Your task to perform on an android device: Search for Mexican restaurants on Maps Image 0: 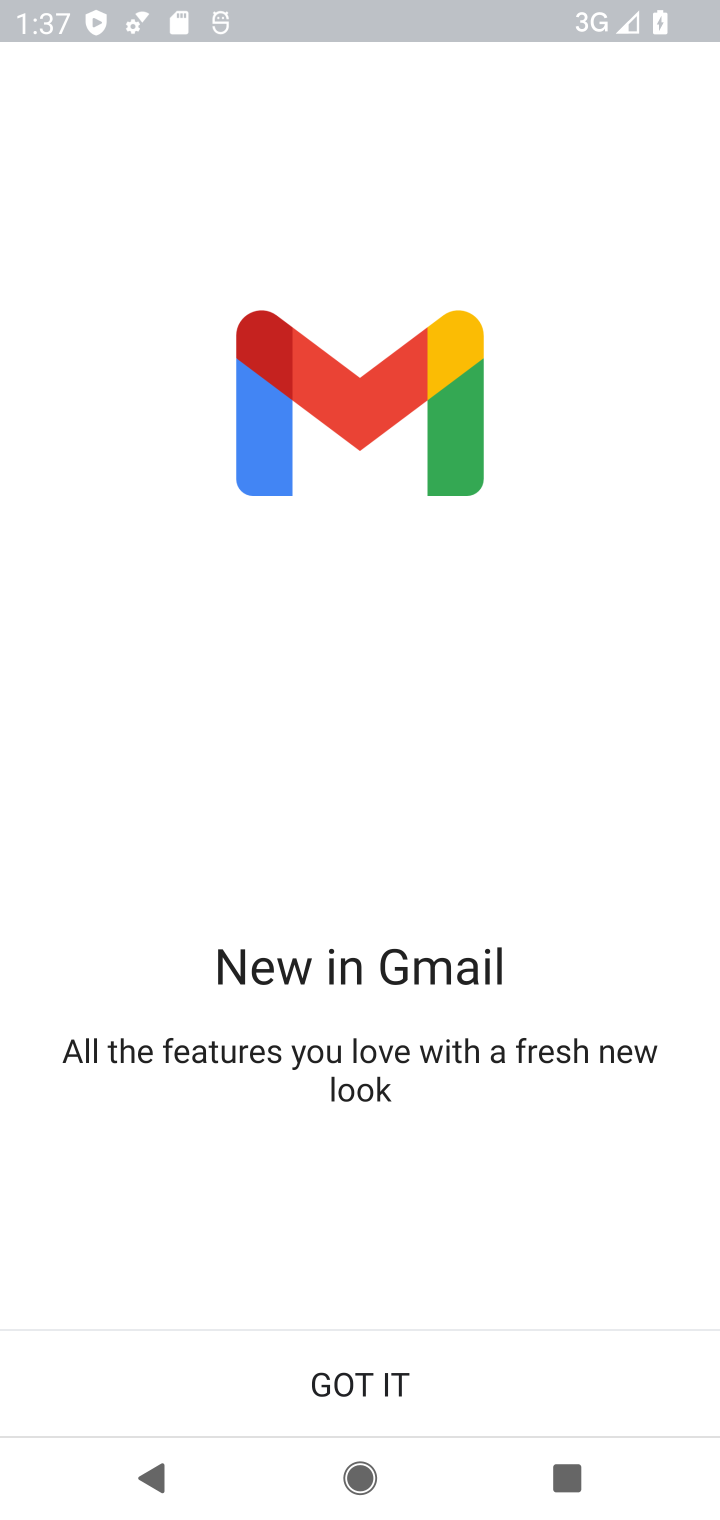
Step 0: press home button
Your task to perform on an android device: Search for Mexican restaurants on Maps Image 1: 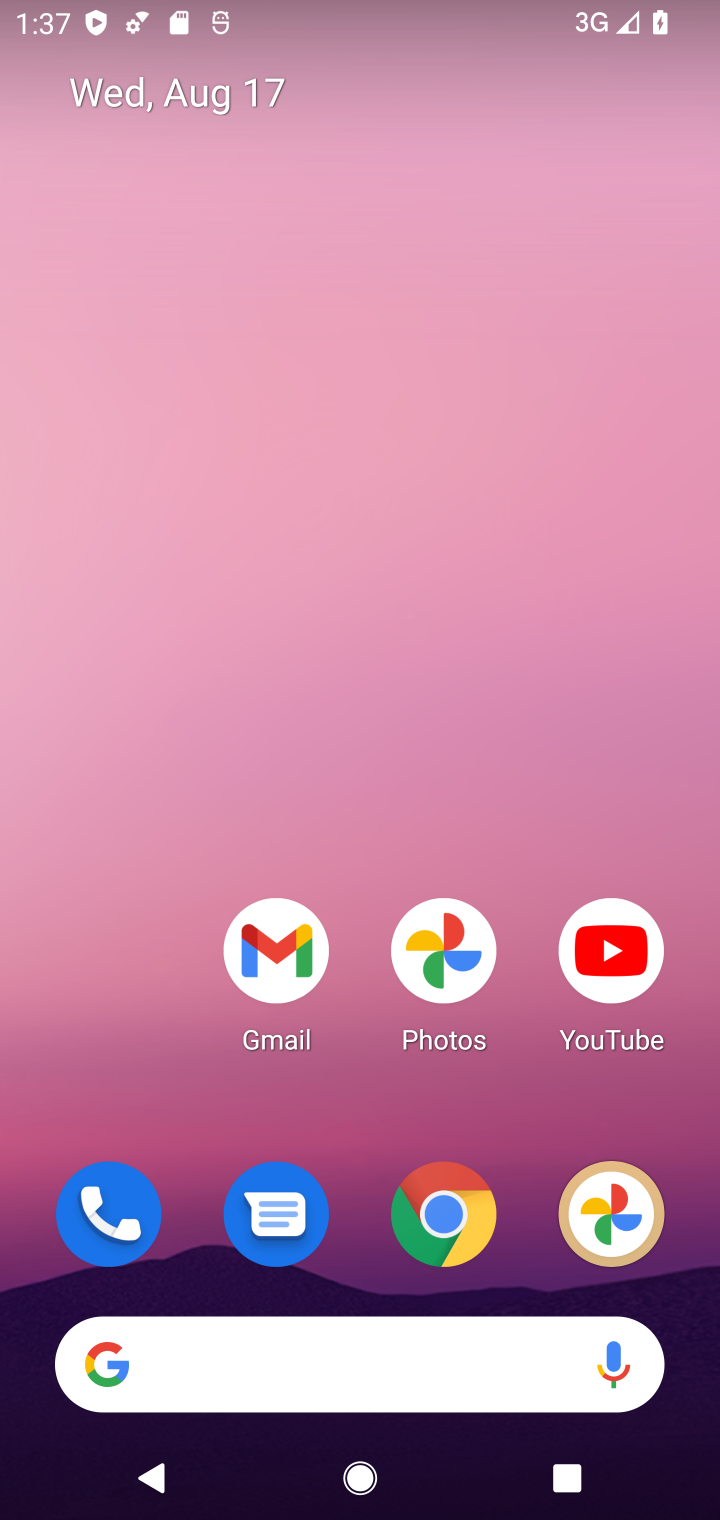
Step 1: drag from (371, 1281) to (308, 69)
Your task to perform on an android device: Search for Mexican restaurants on Maps Image 2: 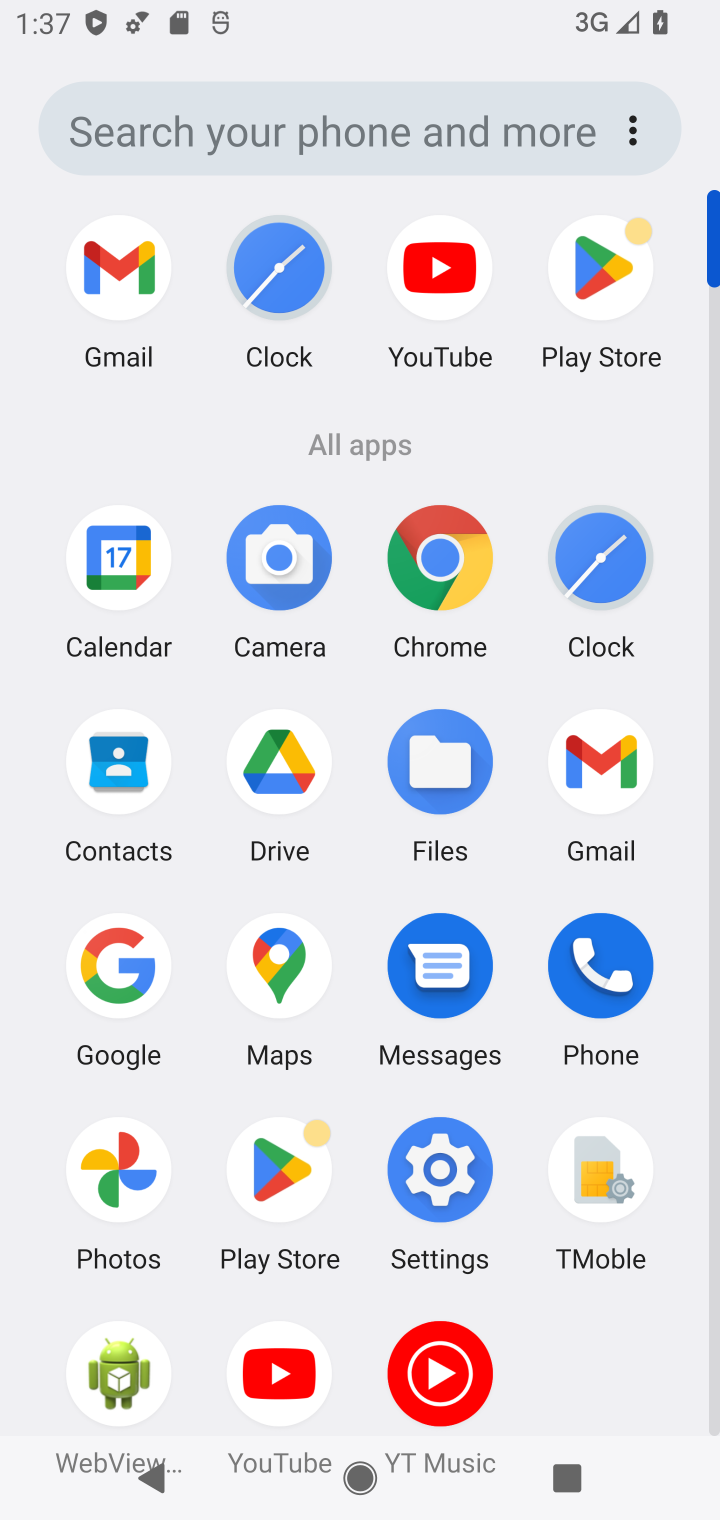
Step 2: click (280, 949)
Your task to perform on an android device: Search for Mexican restaurants on Maps Image 3: 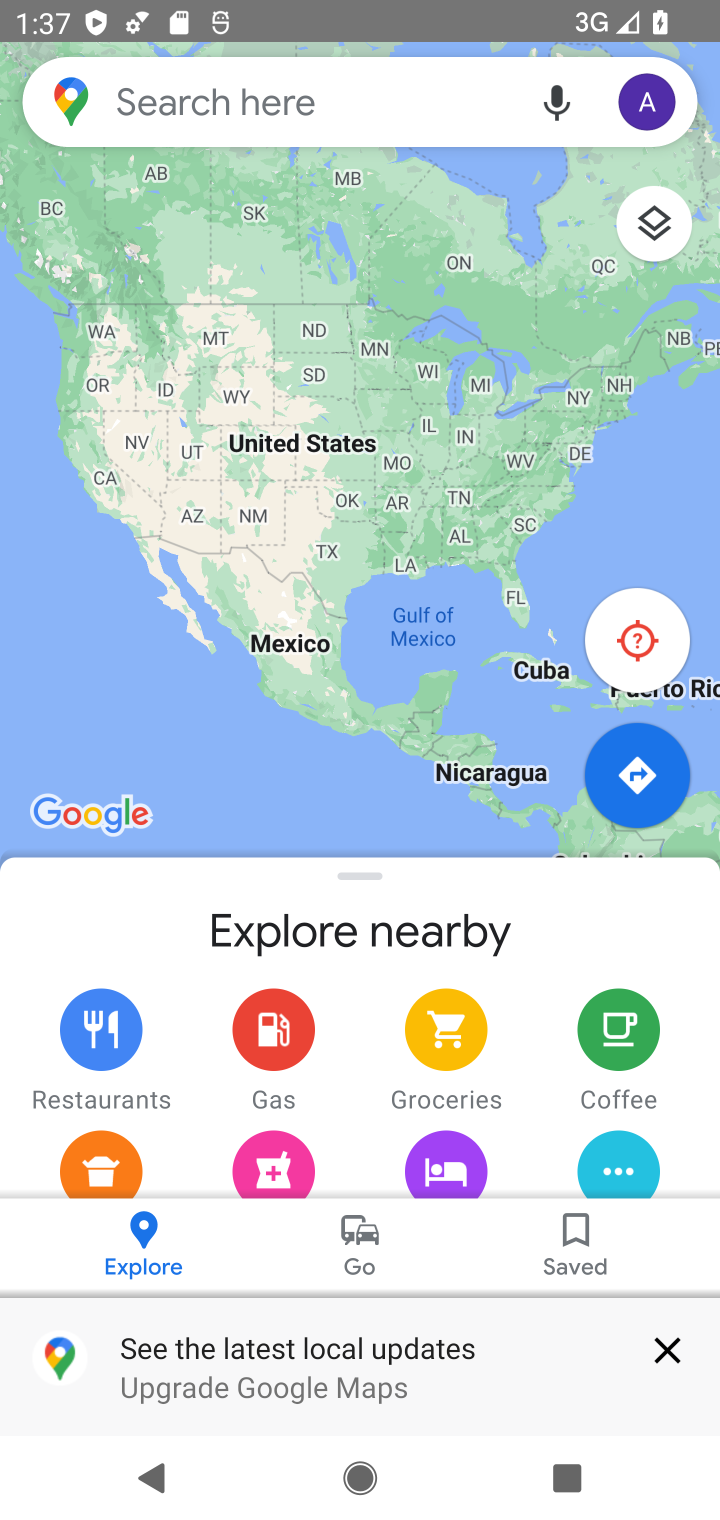
Step 3: click (236, 100)
Your task to perform on an android device: Search for Mexican restaurants on Maps Image 4: 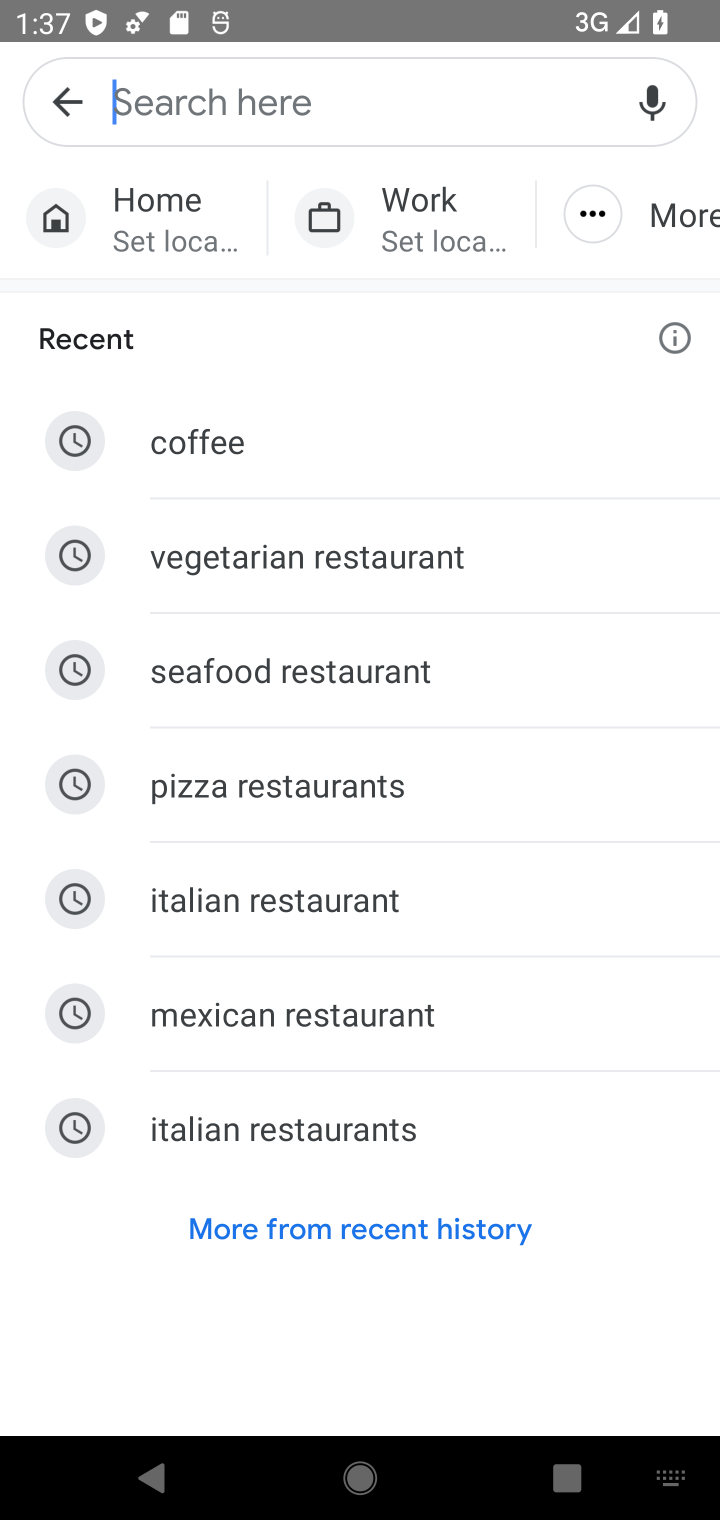
Step 4: click (331, 1022)
Your task to perform on an android device: Search for Mexican restaurants on Maps Image 5: 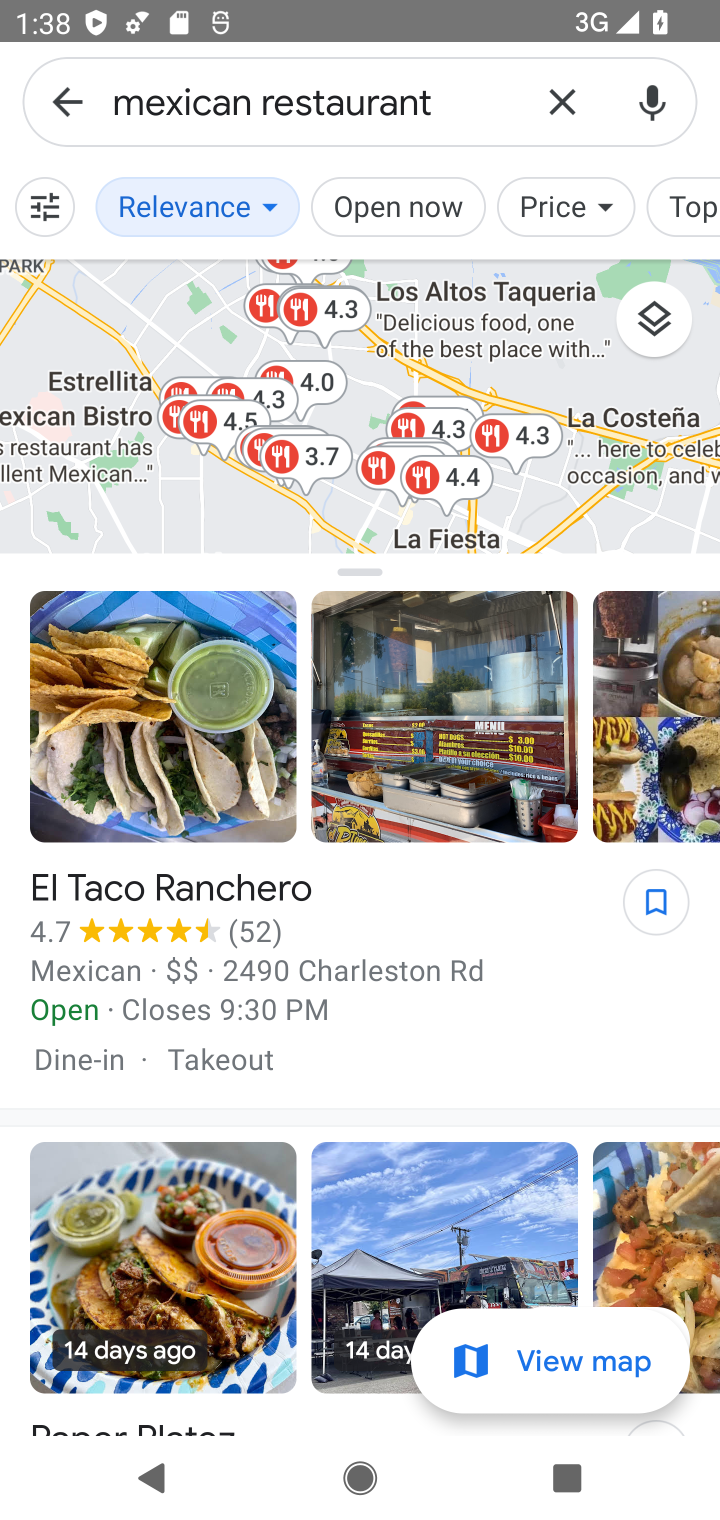
Step 5: task complete